Your task to perform on an android device: change timer sound Image 0: 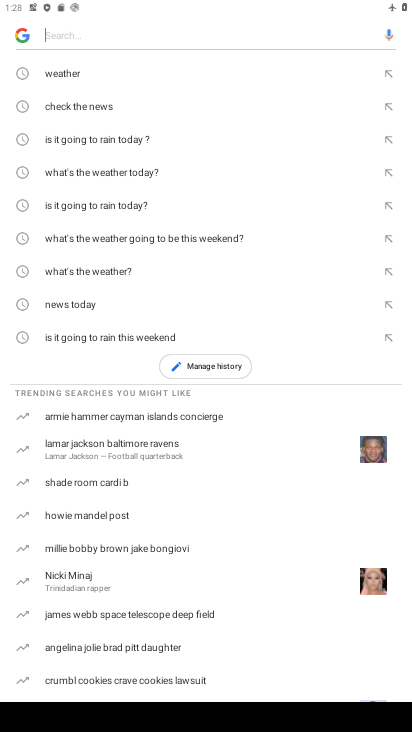
Step 0: press home button
Your task to perform on an android device: change timer sound Image 1: 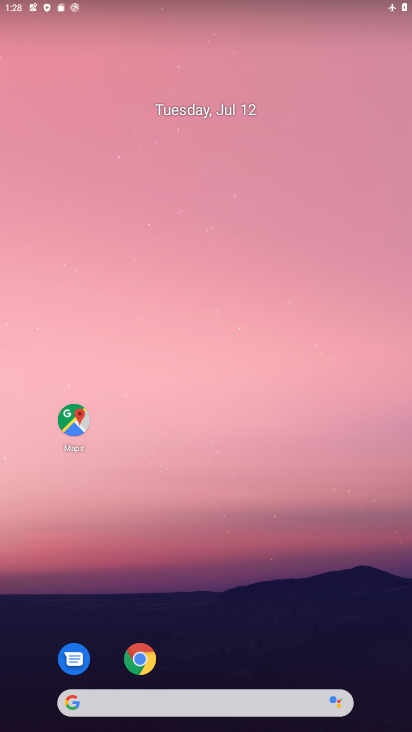
Step 1: drag from (240, 716) to (235, 352)
Your task to perform on an android device: change timer sound Image 2: 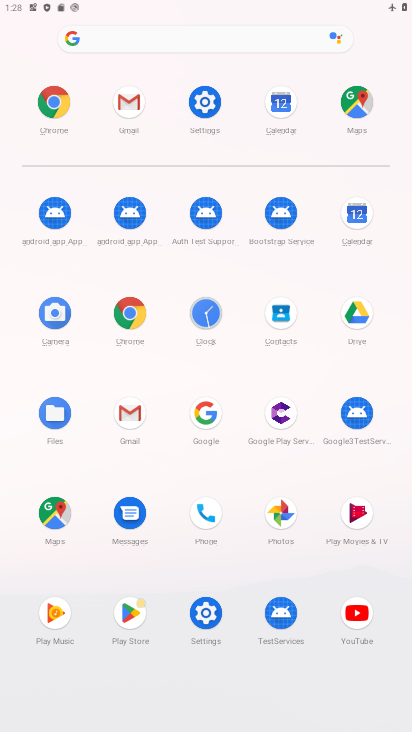
Step 2: click (209, 310)
Your task to perform on an android device: change timer sound Image 3: 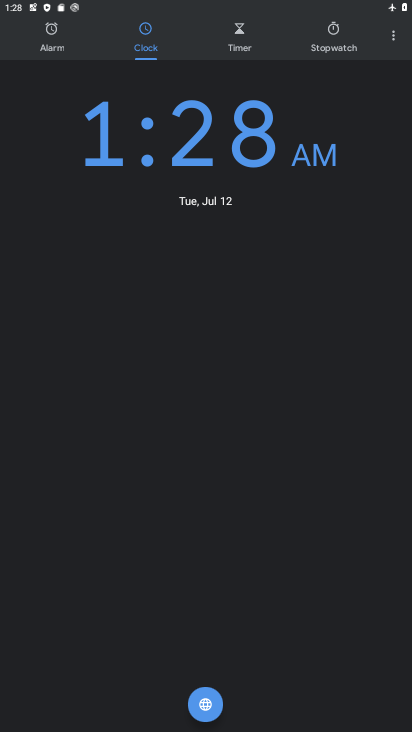
Step 3: click (396, 42)
Your task to perform on an android device: change timer sound Image 4: 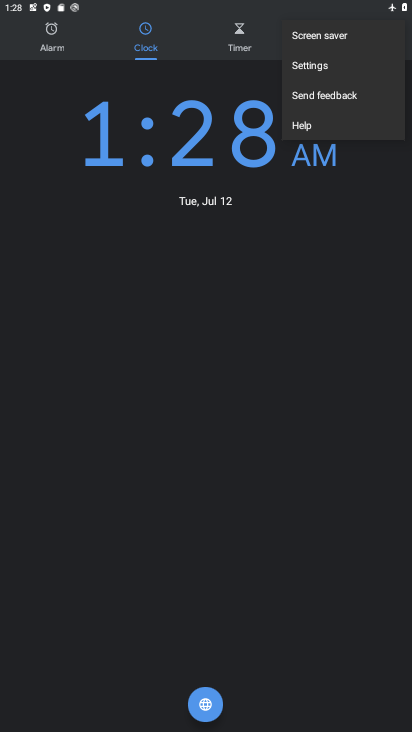
Step 4: click (313, 68)
Your task to perform on an android device: change timer sound Image 5: 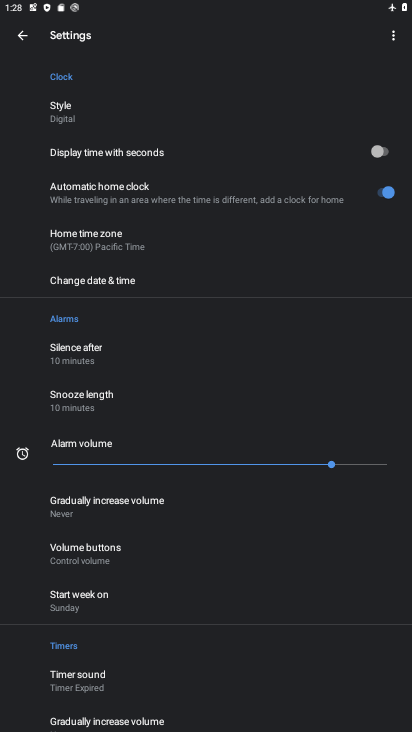
Step 5: click (81, 676)
Your task to perform on an android device: change timer sound Image 6: 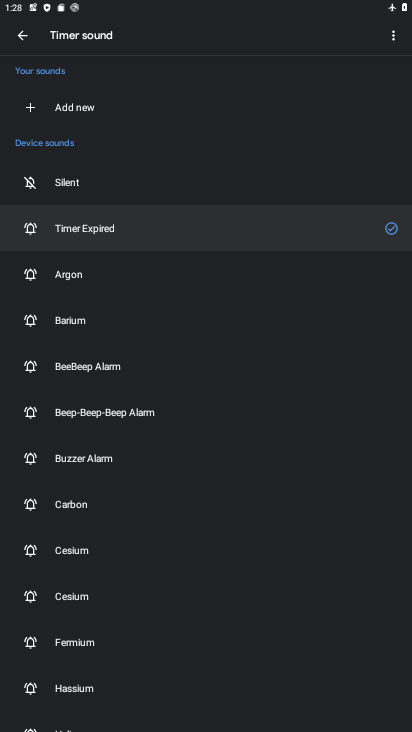
Step 6: click (58, 684)
Your task to perform on an android device: change timer sound Image 7: 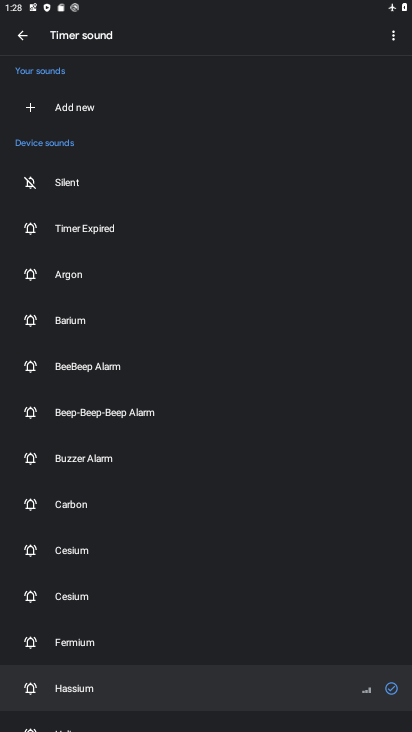
Step 7: task complete